Your task to perform on an android device: turn on bluetooth scan Image 0: 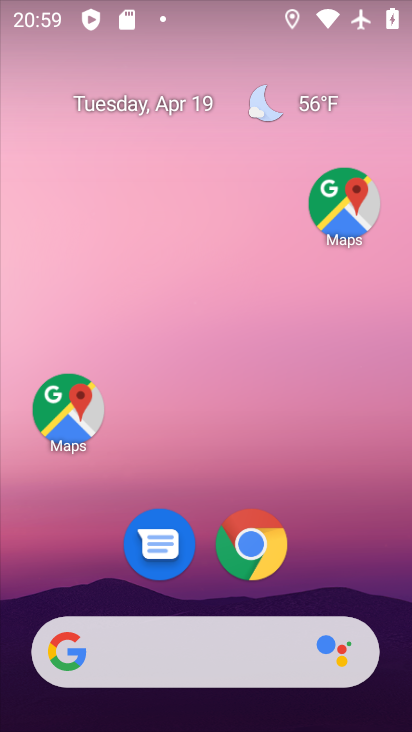
Step 0: drag from (175, 604) to (308, 22)
Your task to perform on an android device: turn on bluetooth scan Image 1: 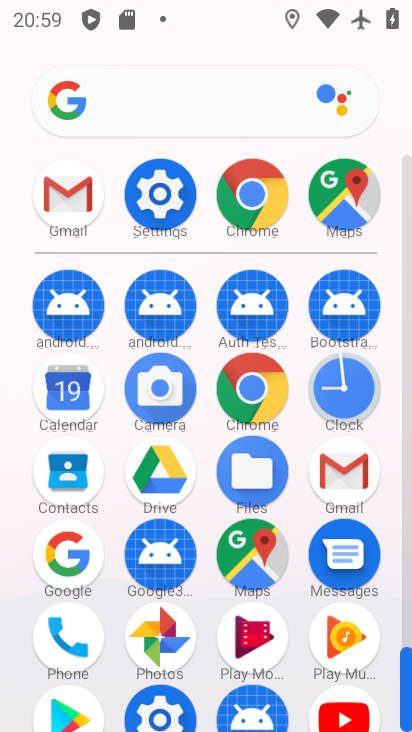
Step 1: click (157, 199)
Your task to perform on an android device: turn on bluetooth scan Image 2: 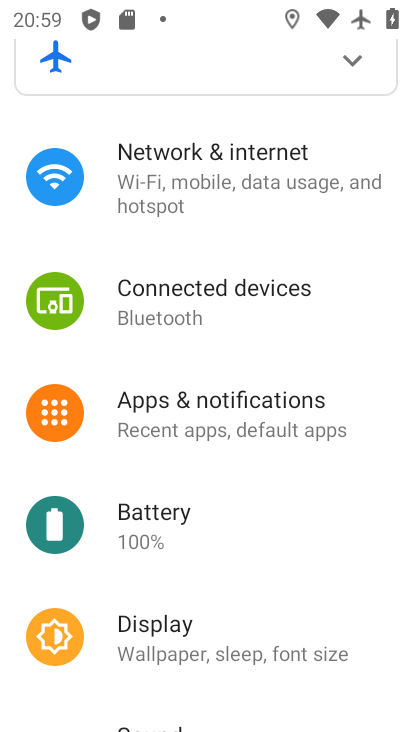
Step 2: drag from (236, 556) to (338, 125)
Your task to perform on an android device: turn on bluetooth scan Image 3: 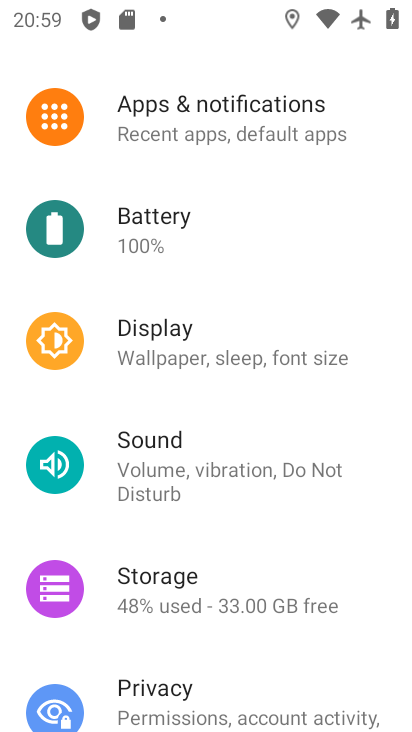
Step 3: drag from (221, 635) to (366, 91)
Your task to perform on an android device: turn on bluetooth scan Image 4: 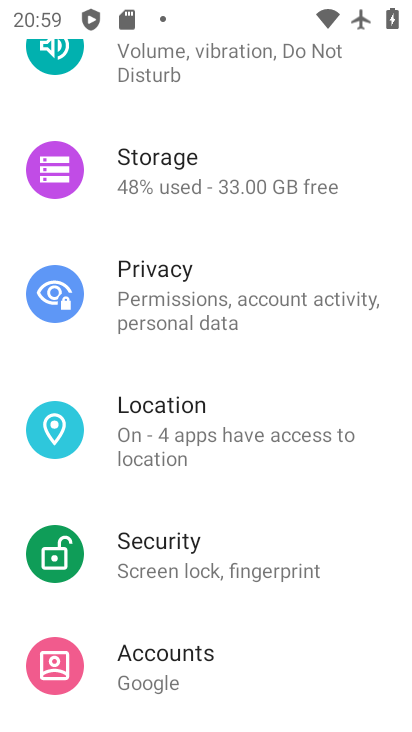
Step 4: click (184, 399)
Your task to perform on an android device: turn on bluetooth scan Image 5: 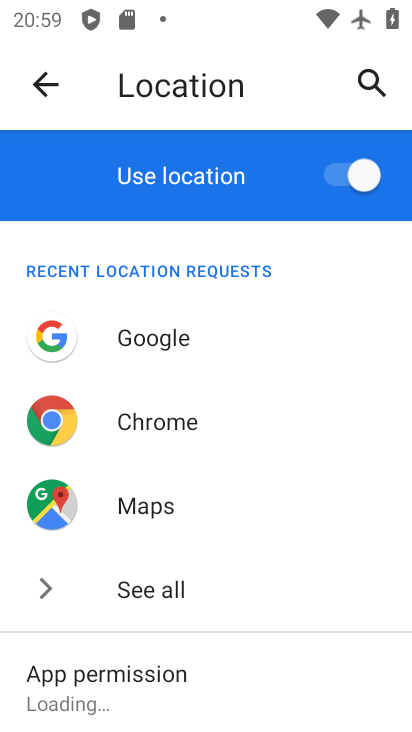
Step 5: drag from (221, 632) to (319, 291)
Your task to perform on an android device: turn on bluetooth scan Image 6: 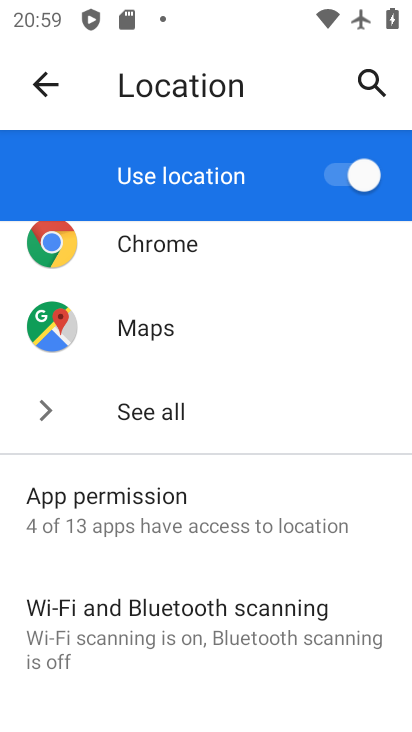
Step 6: click (184, 610)
Your task to perform on an android device: turn on bluetooth scan Image 7: 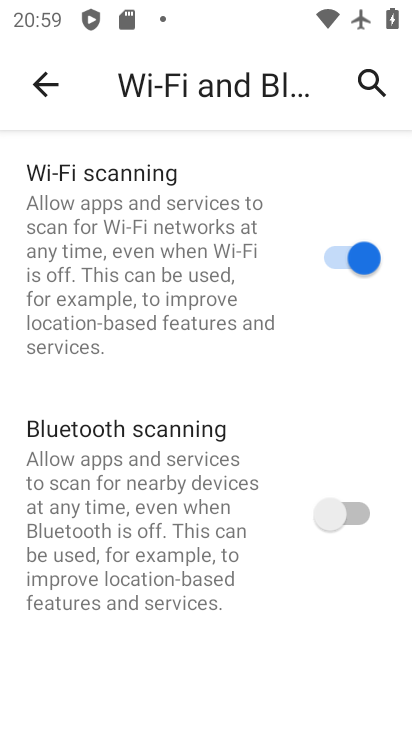
Step 7: click (359, 508)
Your task to perform on an android device: turn on bluetooth scan Image 8: 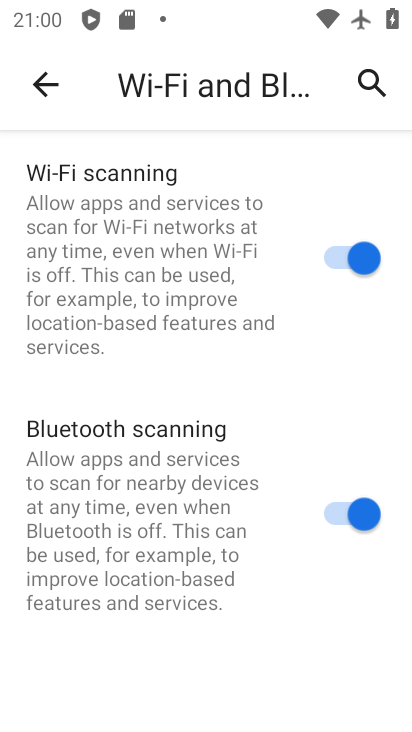
Step 8: task complete